Your task to perform on an android device: Open the calendar app, open the side menu, and click the "Day" option Image 0: 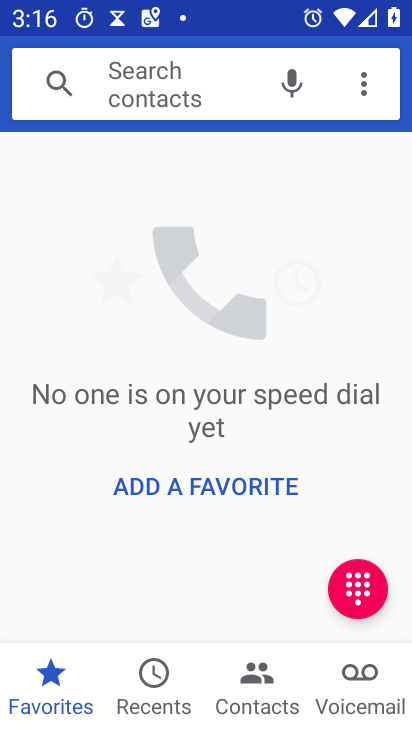
Step 0: press back button
Your task to perform on an android device: Open the calendar app, open the side menu, and click the "Day" option Image 1: 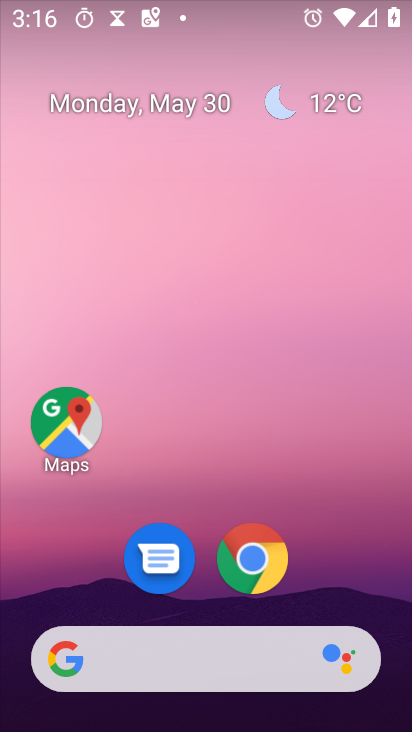
Step 1: drag from (233, 607) to (300, 82)
Your task to perform on an android device: Open the calendar app, open the side menu, and click the "Day" option Image 2: 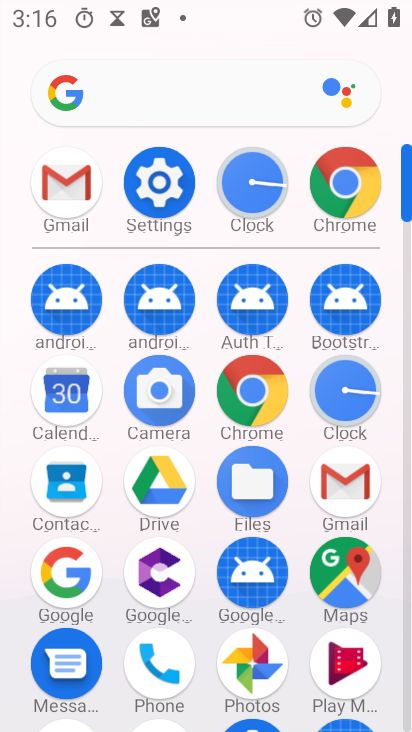
Step 2: click (43, 394)
Your task to perform on an android device: Open the calendar app, open the side menu, and click the "Day" option Image 3: 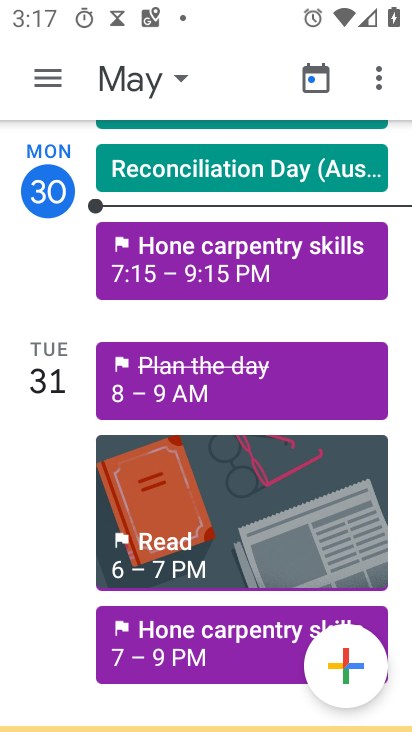
Step 3: click (39, 73)
Your task to perform on an android device: Open the calendar app, open the side menu, and click the "Day" option Image 4: 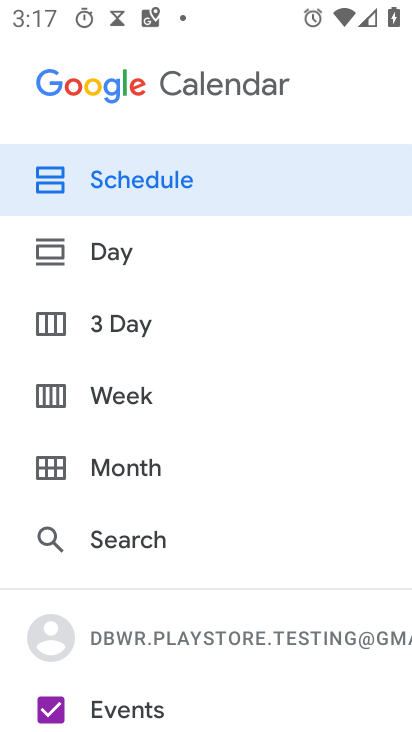
Step 4: click (117, 243)
Your task to perform on an android device: Open the calendar app, open the side menu, and click the "Day" option Image 5: 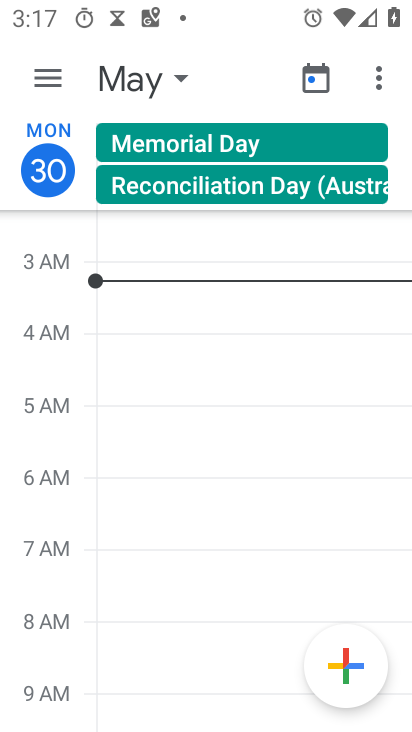
Step 5: task complete